Your task to perform on an android device: What is the recent news? Image 0: 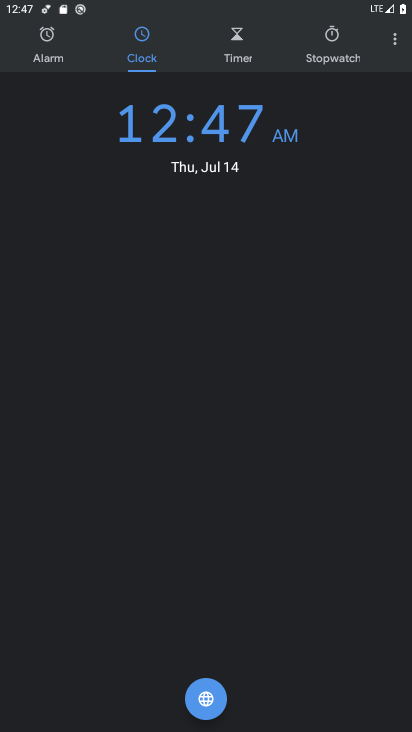
Step 0: press home button
Your task to perform on an android device: What is the recent news? Image 1: 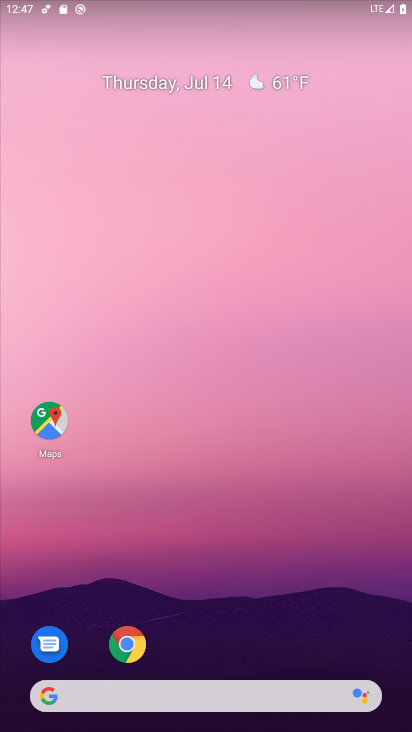
Step 1: click (185, 695)
Your task to perform on an android device: What is the recent news? Image 2: 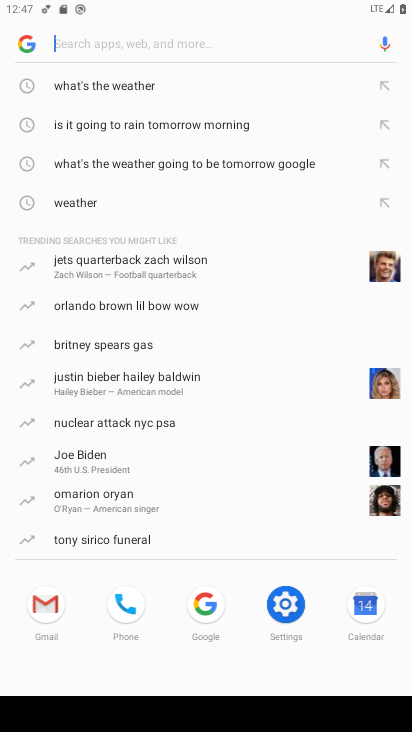
Step 2: type "What is the recent news"
Your task to perform on an android device: What is the recent news? Image 3: 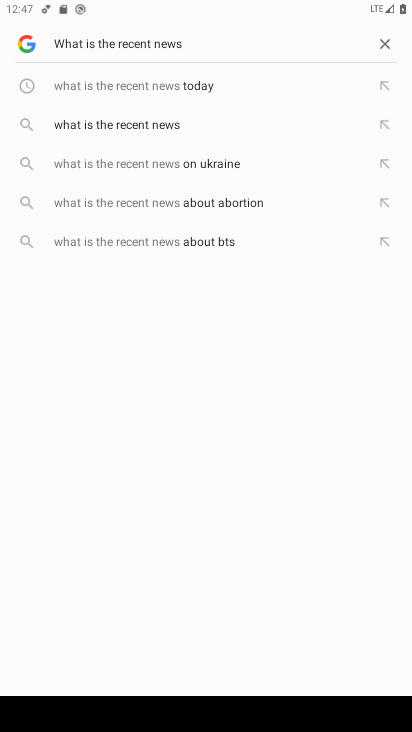
Step 3: click (143, 121)
Your task to perform on an android device: What is the recent news? Image 4: 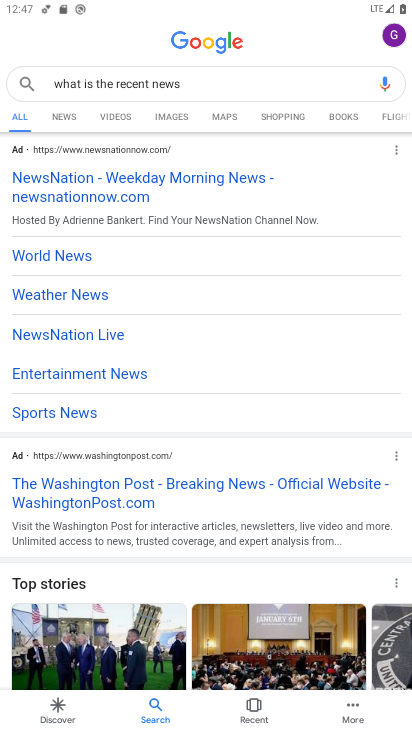
Step 4: click (57, 112)
Your task to perform on an android device: What is the recent news? Image 5: 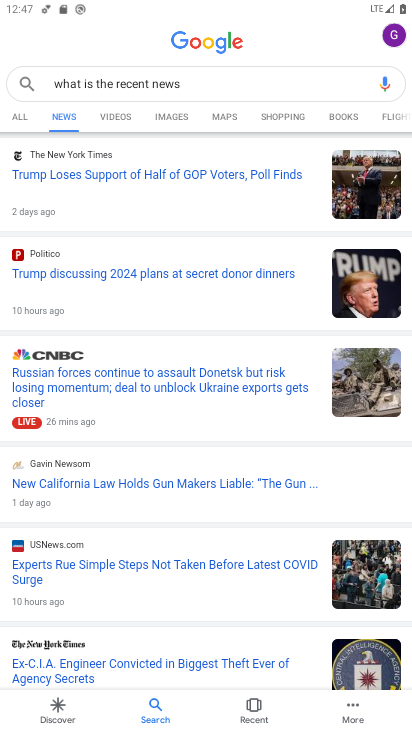
Step 5: task complete